Your task to perform on an android device: Open wifi settings Image 0: 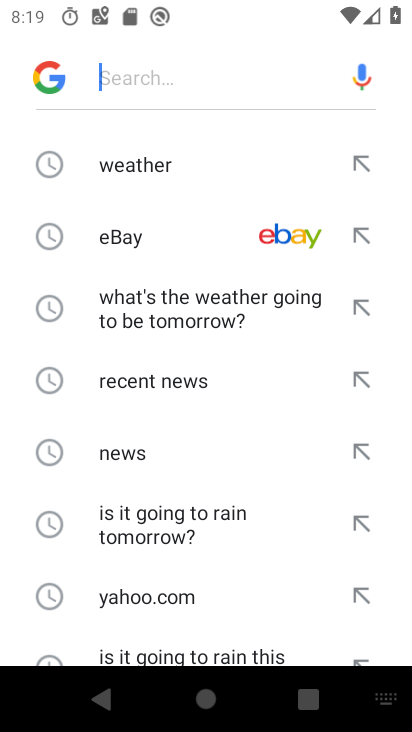
Step 0: press home button
Your task to perform on an android device: Open wifi settings Image 1: 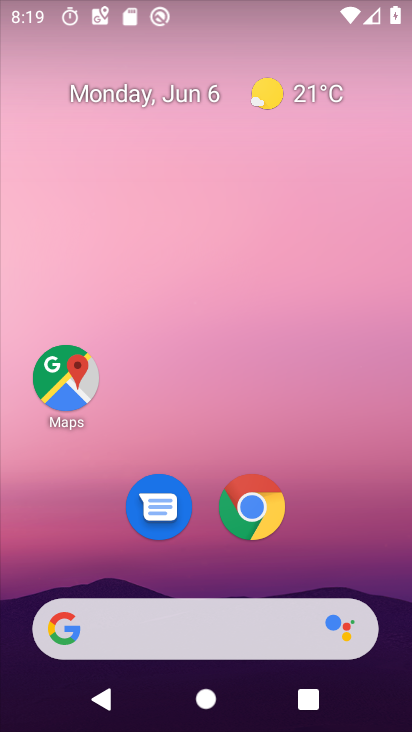
Step 1: drag from (330, 4) to (255, 390)
Your task to perform on an android device: Open wifi settings Image 2: 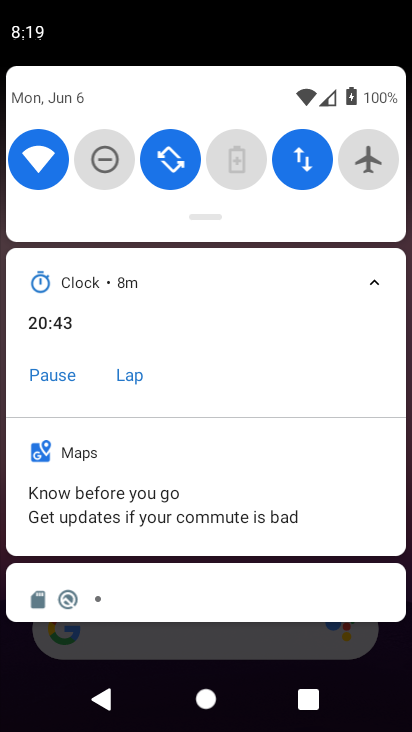
Step 2: click (35, 154)
Your task to perform on an android device: Open wifi settings Image 3: 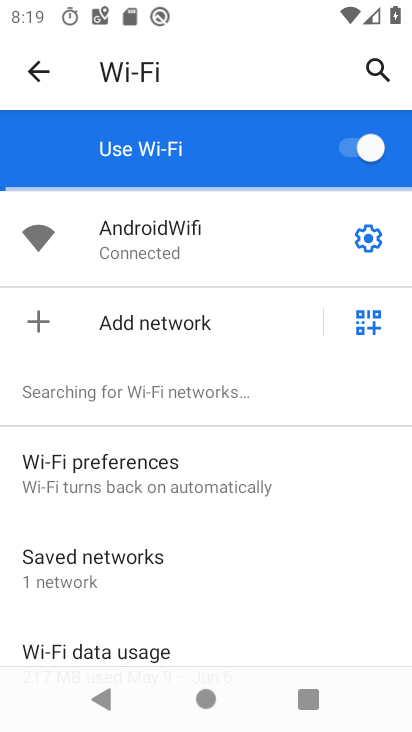
Step 3: task complete